Your task to perform on an android device: Open Yahoo.com Image 0: 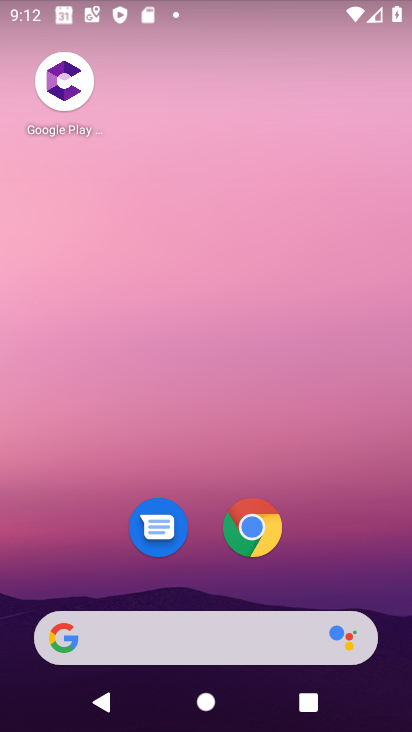
Step 0: drag from (317, 568) to (306, 237)
Your task to perform on an android device: Open Yahoo.com Image 1: 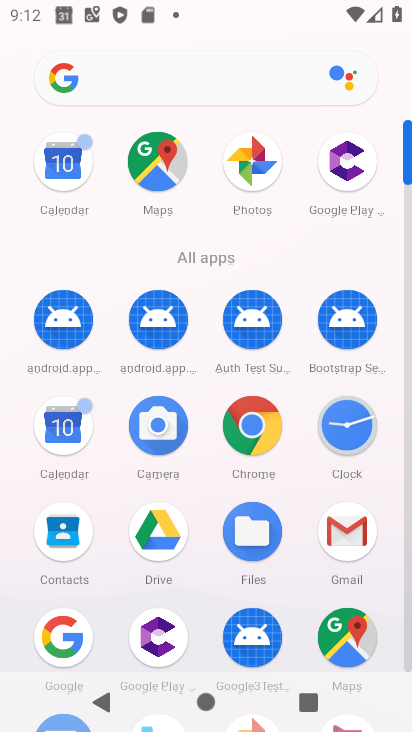
Step 1: click (251, 461)
Your task to perform on an android device: Open Yahoo.com Image 2: 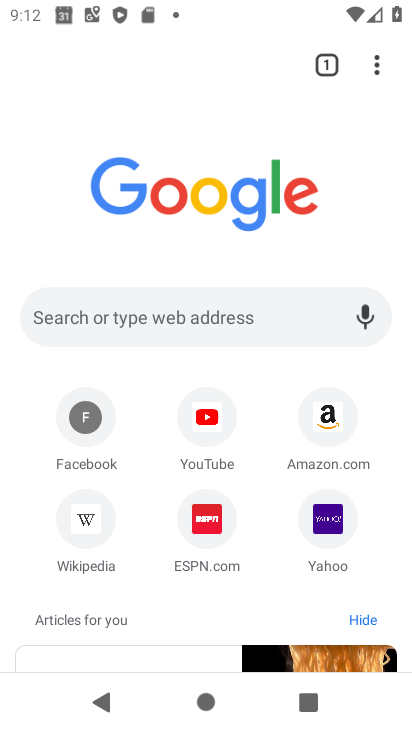
Step 2: click (334, 513)
Your task to perform on an android device: Open Yahoo.com Image 3: 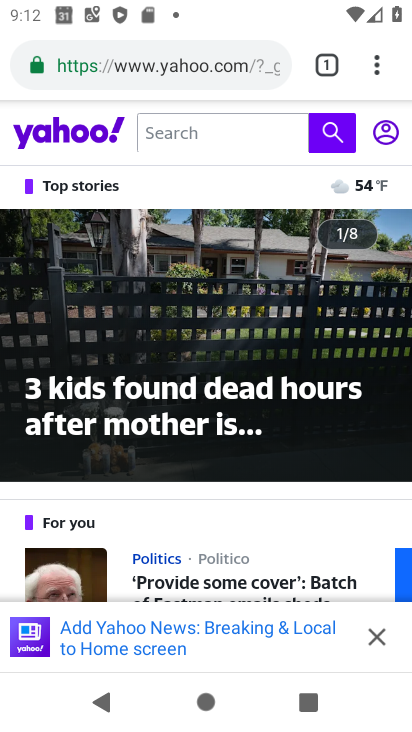
Step 3: task complete